Your task to perform on an android device: Search for vegetarian restaurants on Maps Image 0: 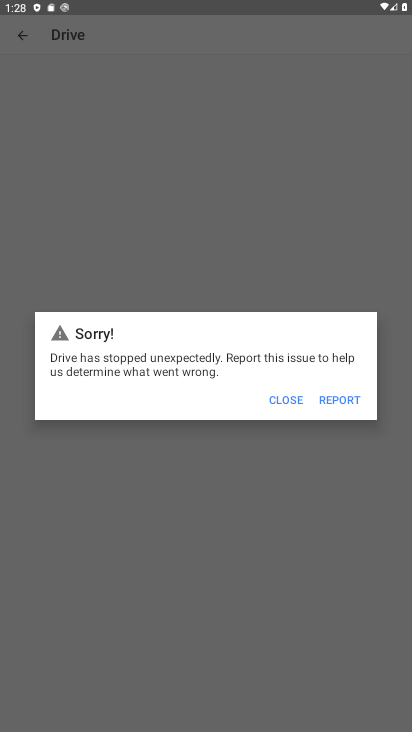
Step 0: task complete